Your task to perform on an android device: check battery use Image 0: 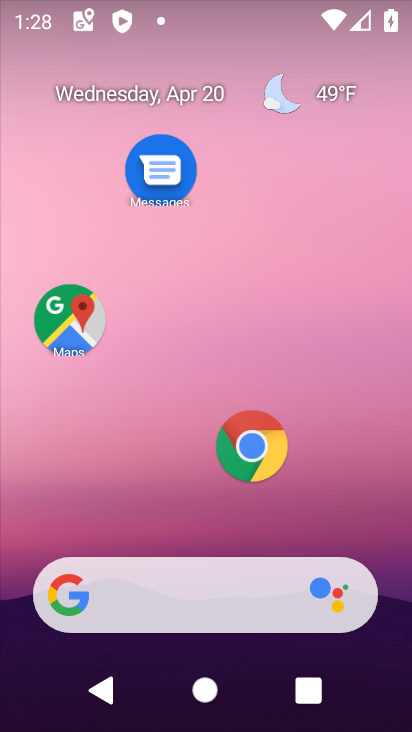
Step 0: drag from (210, 532) to (285, 13)
Your task to perform on an android device: check battery use Image 1: 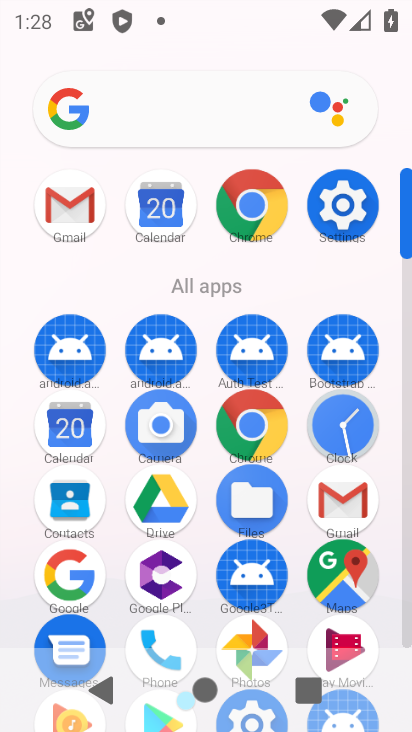
Step 1: click (342, 195)
Your task to perform on an android device: check battery use Image 2: 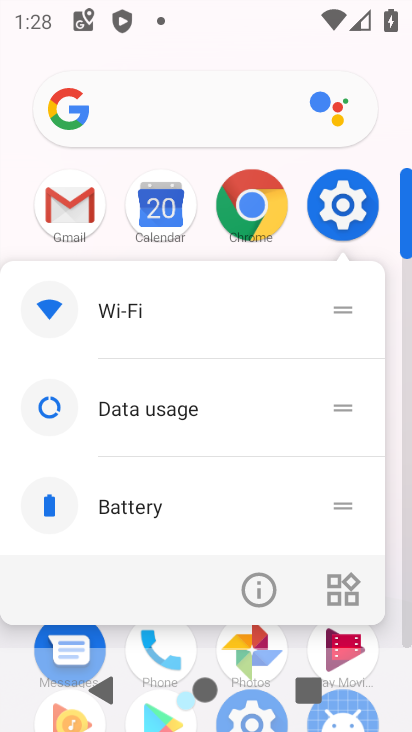
Step 2: click (338, 194)
Your task to perform on an android device: check battery use Image 3: 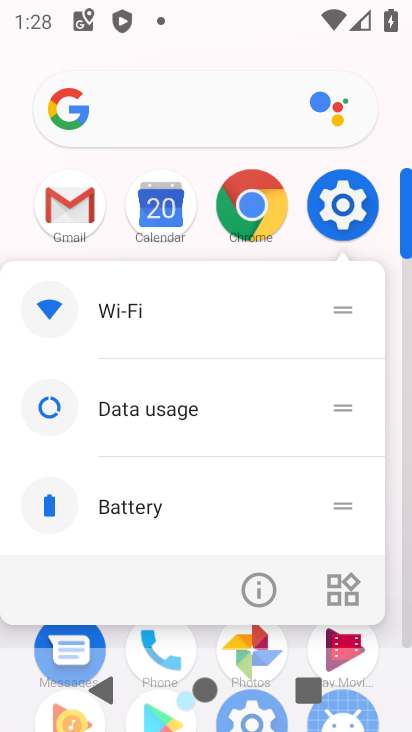
Step 3: click (345, 194)
Your task to perform on an android device: check battery use Image 4: 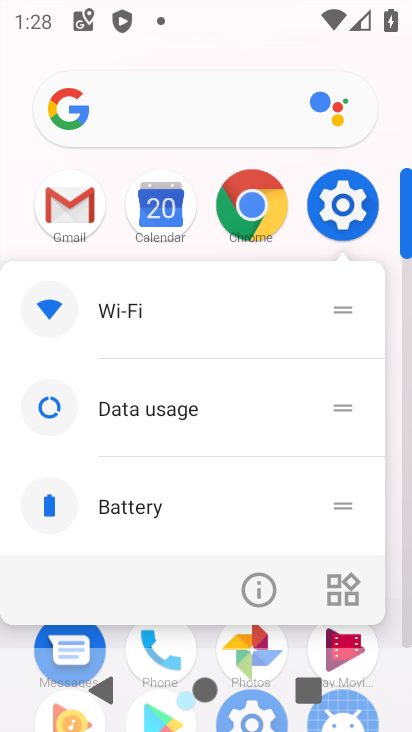
Step 4: click (343, 198)
Your task to perform on an android device: check battery use Image 5: 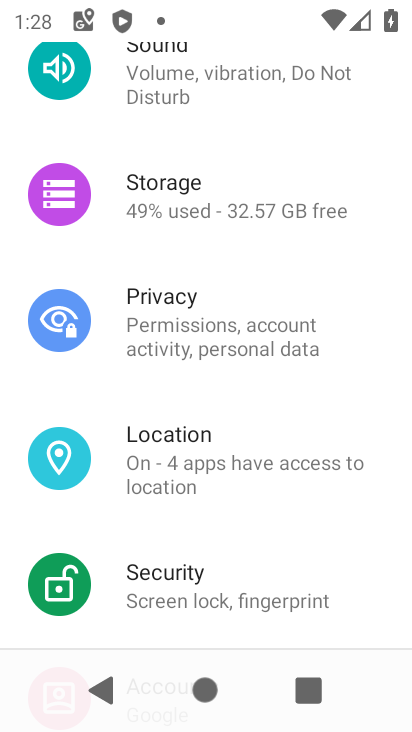
Step 5: drag from (187, 117) to (166, 453)
Your task to perform on an android device: check battery use Image 6: 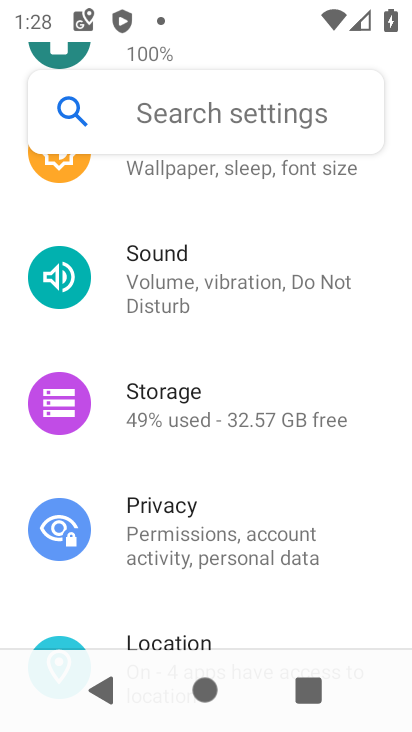
Step 6: drag from (205, 221) to (126, 662)
Your task to perform on an android device: check battery use Image 7: 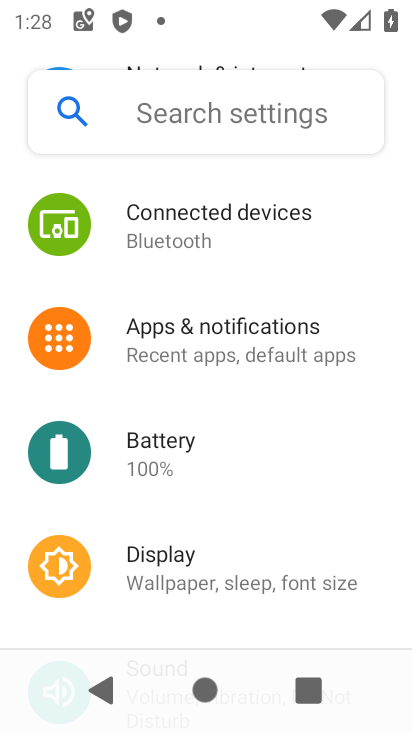
Step 7: click (190, 450)
Your task to perform on an android device: check battery use Image 8: 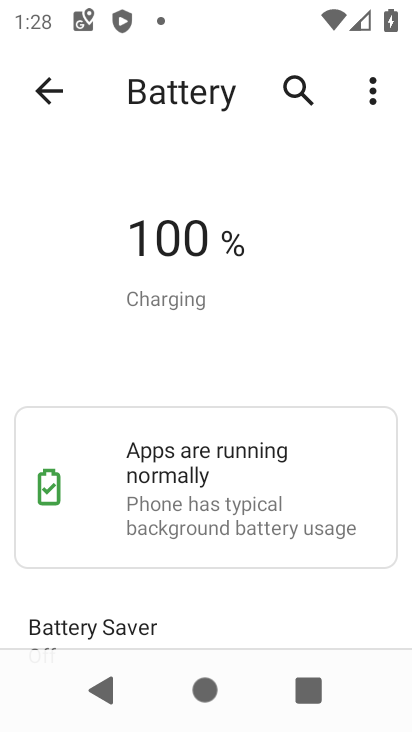
Step 8: click (372, 93)
Your task to perform on an android device: check battery use Image 9: 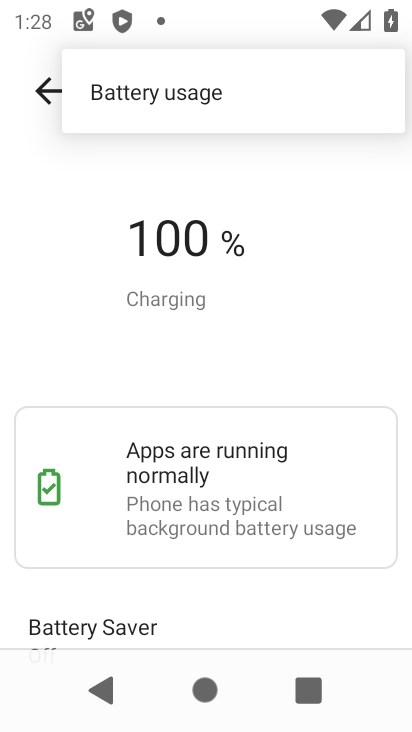
Step 9: click (175, 103)
Your task to perform on an android device: check battery use Image 10: 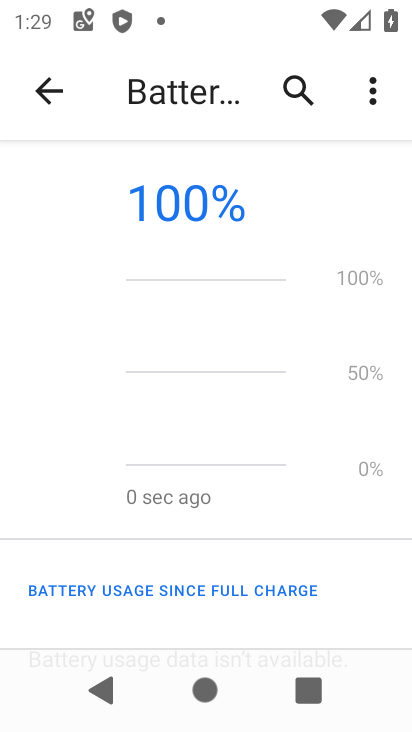
Step 10: task complete